Your task to perform on an android device: turn off notifications in google photos Image 0: 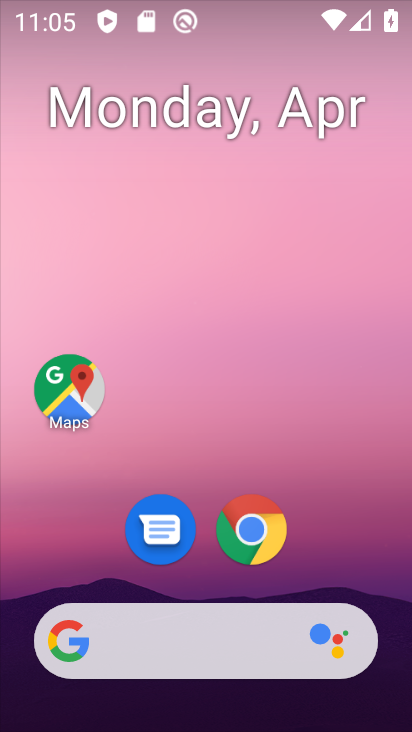
Step 0: drag from (373, 601) to (249, 8)
Your task to perform on an android device: turn off notifications in google photos Image 1: 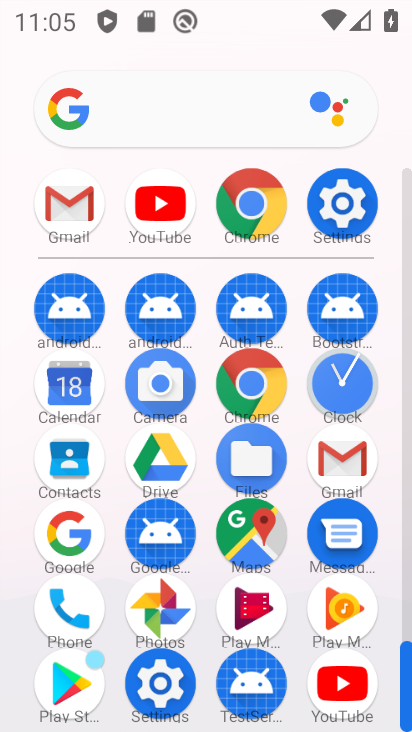
Step 1: click (166, 608)
Your task to perform on an android device: turn off notifications in google photos Image 2: 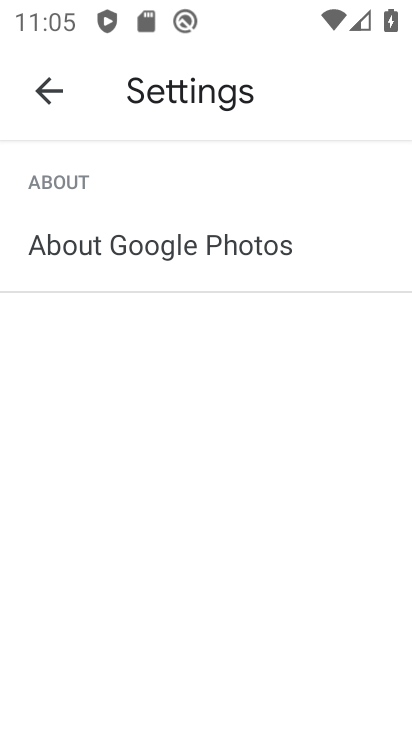
Step 2: press back button
Your task to perform on an android device: turn off notifications in google photos Image 3: 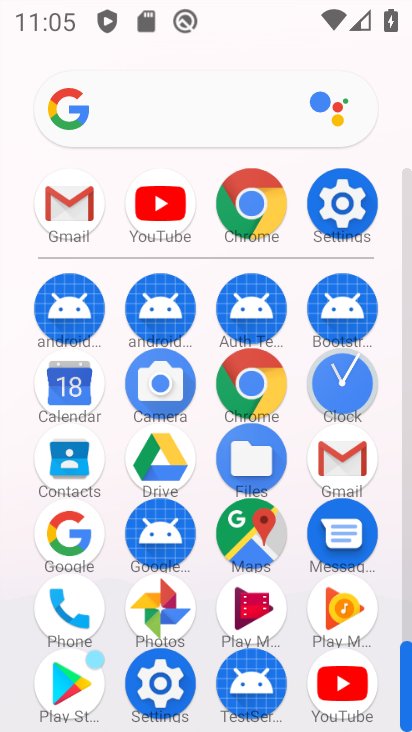
Step 3: click (141, 601)
Your task to perform on an android device: turn off notifications in google photos Image 4: 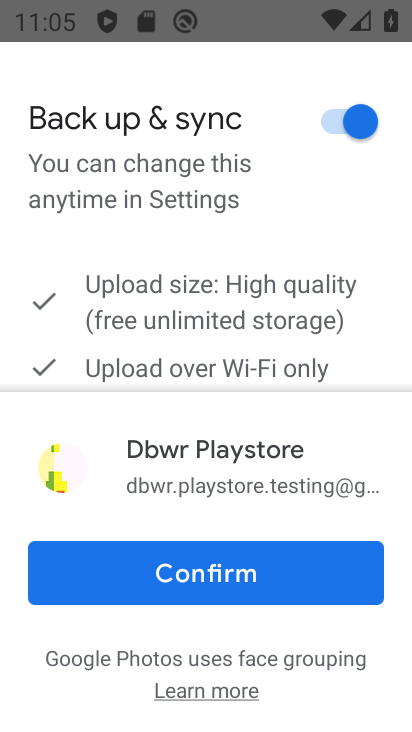
Step 4: click (164, 587)
Your task to perform on an android device: turn off notifications in google photos Image 5: 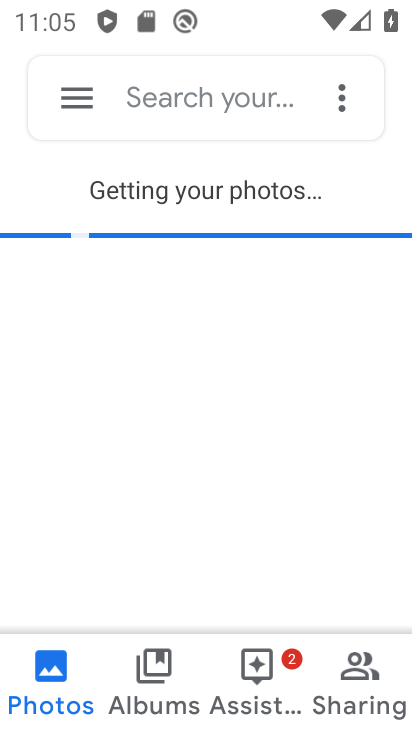
Step 5: click (73, 100)
Your task to perform on an android device: turn off notifications in google photos Image 6: 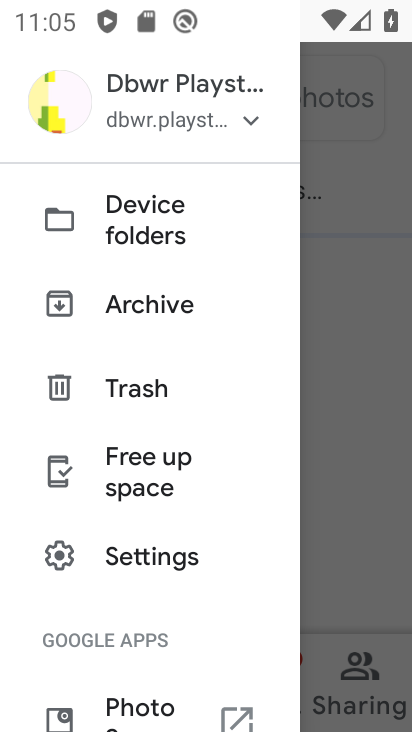
Step 6: click (186, 550)
Your task to perform on an android device: turn off notifications in google photos Image 7: 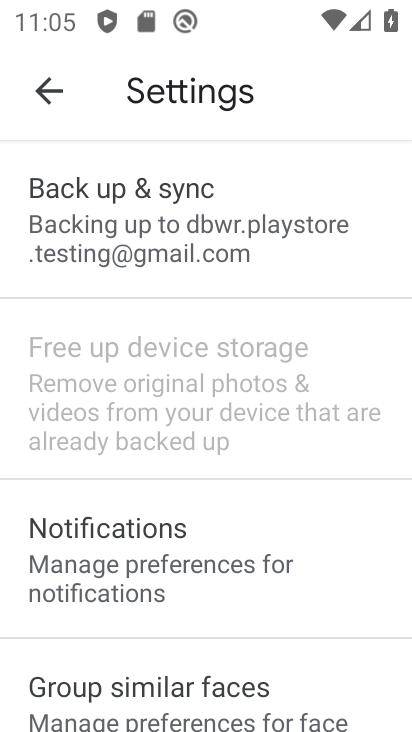
Step 7: click (186, 550)
Your task to perform on an android device: turn off notifications in google photos Image 8: 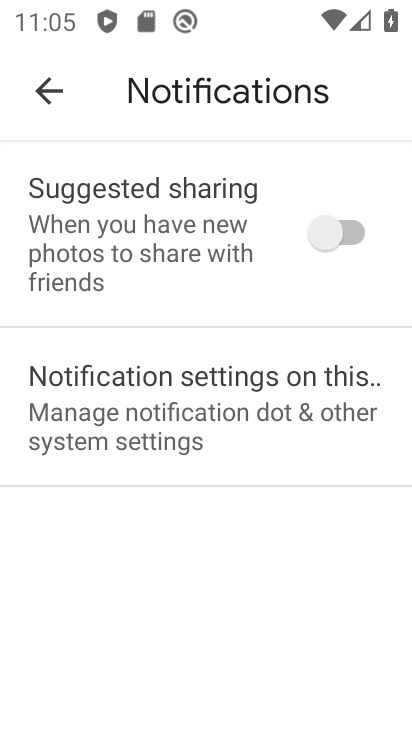
Step 8: task complete